Your task to perform on an android device: Go to sound settings Image 0: 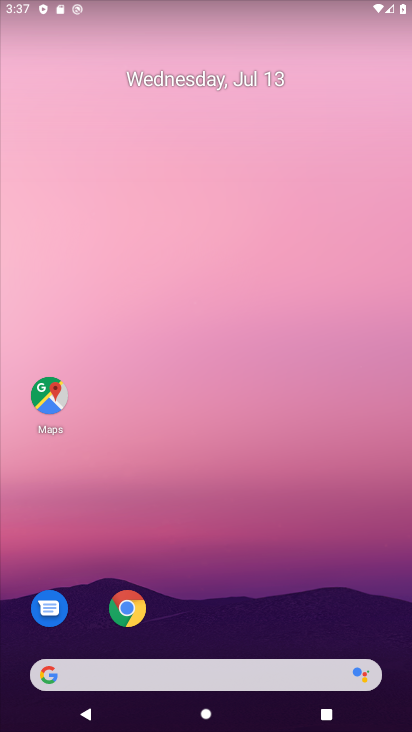
Step 0: drag from (263, 630) to (278, 154)
Your task to perform on an android device: Go to sound settings Image 1: 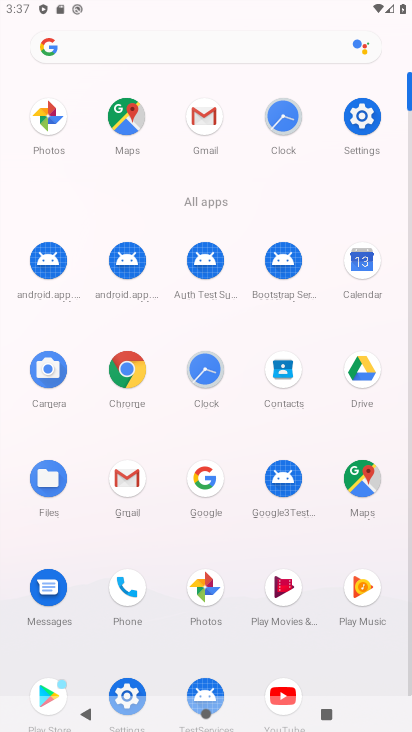
Step 1: click (124, 685)
Your task to perform on an android device: Go to sound settings Image 2: 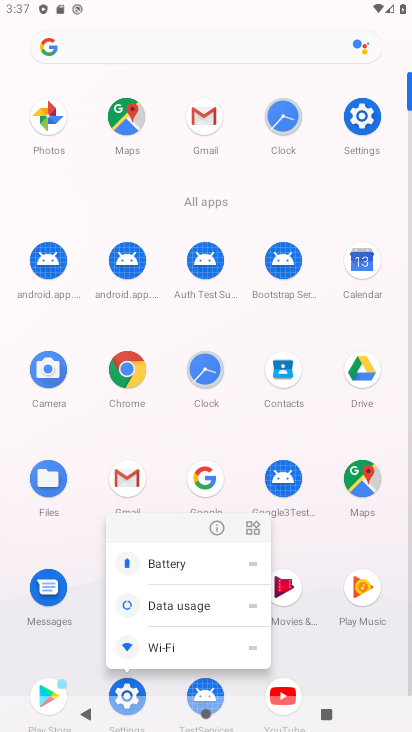
Step 2: click (121, 682)
Your task to perform on an android device: Go to sound settings Image 3: 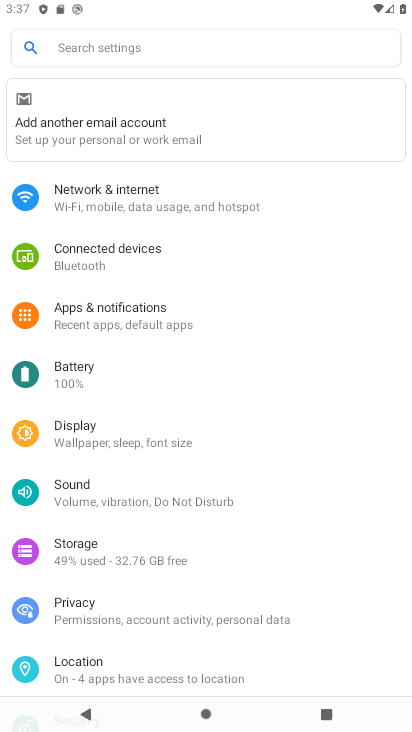
Step 3: click (108, 498)
Your task to perform on an android device: Go to sound settings Image 4: 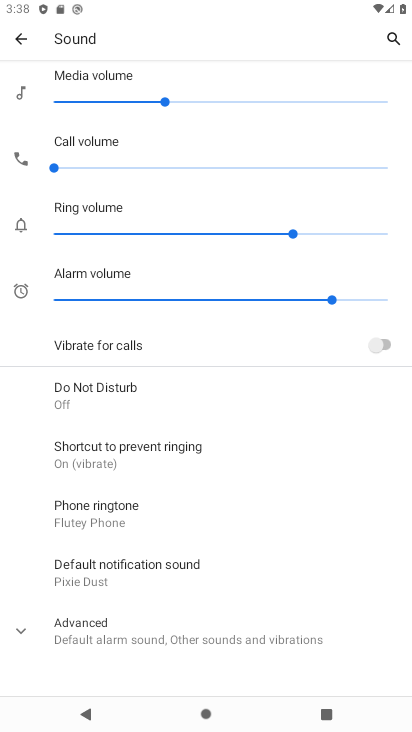
Step 4: task complete